Your task to perform on an android device: turn on improve location accuracy Image 0: 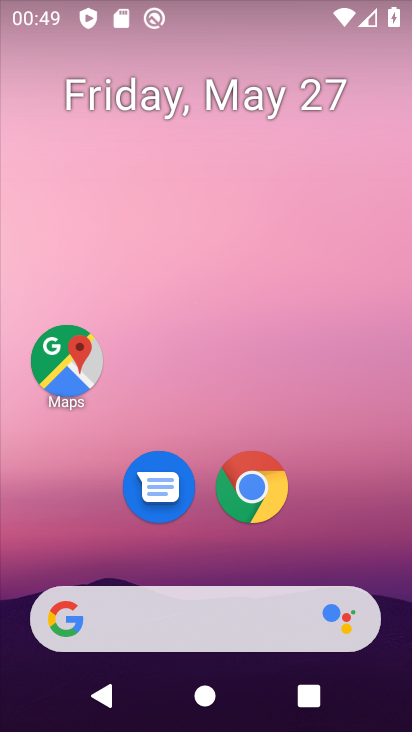
Step 0: drag from (163, 729) to (64, 23)
Your task to perform on an android device: turn on improve location accuracy Image 1: 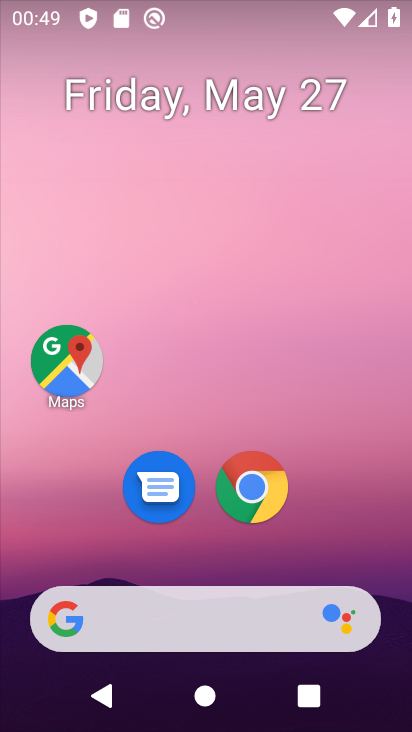
Step 1: drag from (183, 730) to (154, 87)
Your task to perform on an android device: turn on improve location accuracy Image 2: 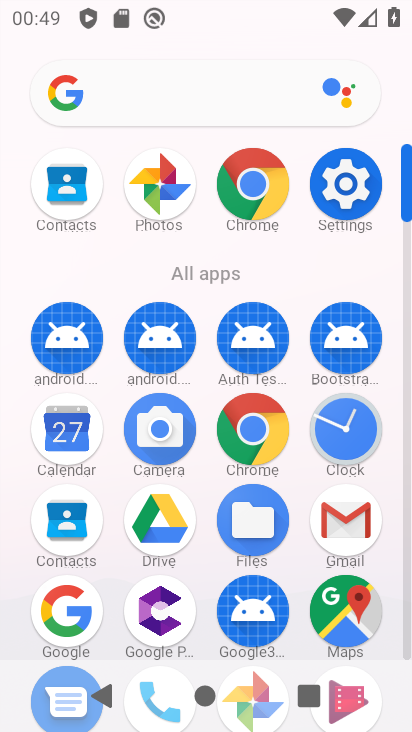
Step 2: click (348, 201)
Your task to perform on an android device: turn on improve location accuracy Image 3: 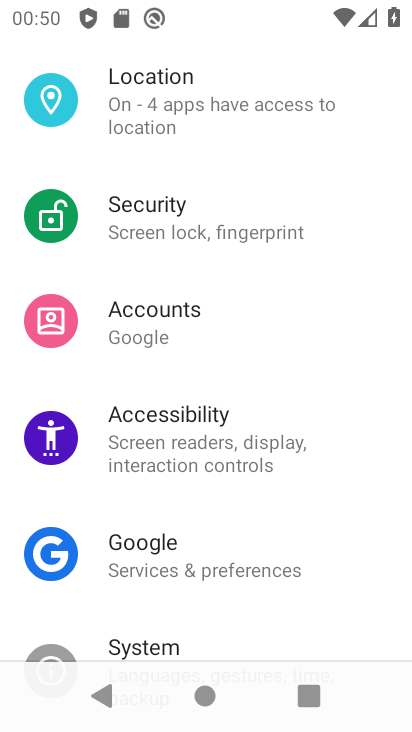
Step 3: click (158, 119)
Your task to perform on an android device: turn on improve location accuracy Image 4: 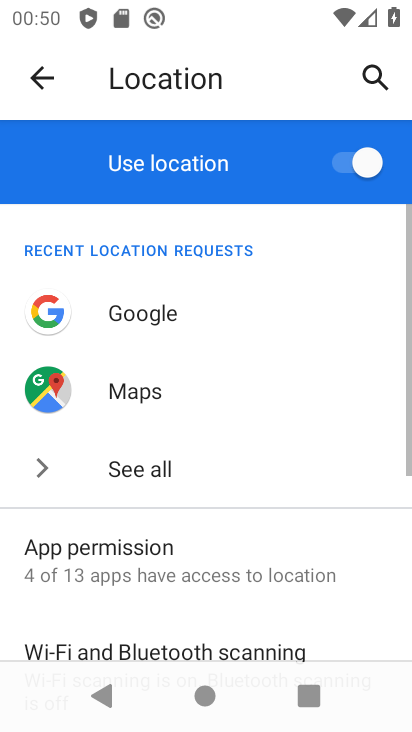
Step 4: drag from (206, 591) to (198, 246)
Your task to perform on an android device: turn on improve location accuracy Image 5: 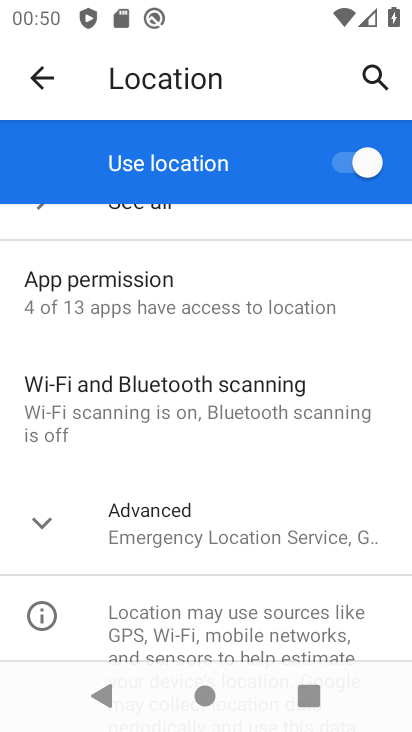
Step 5: click (245, 529)
Your task to perform on an android device: turn on improve location accuracy Image 6: 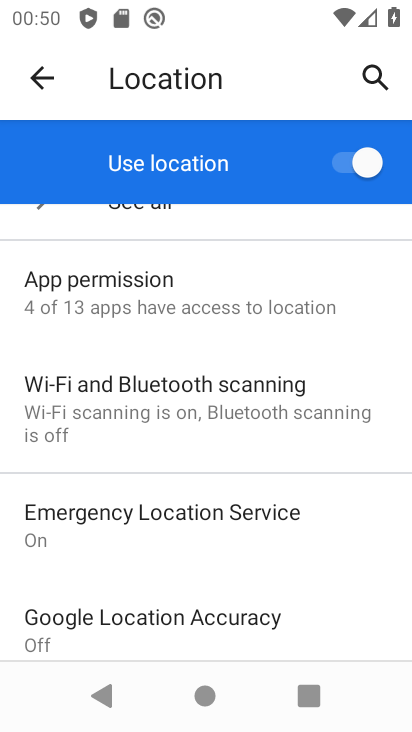
Step 6: click (260, 621)
Your task to perform on an android device: turn on improve location accuracy Image 7: 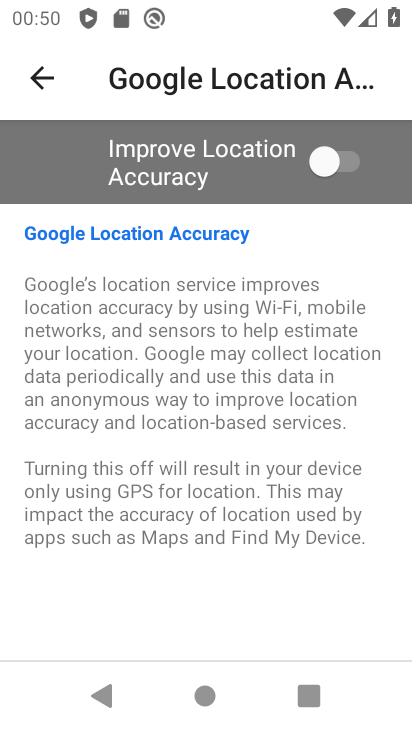
Step 7: click (334, 155)
Your task to perform on an android device: turn on improve location accuracy Image 8: 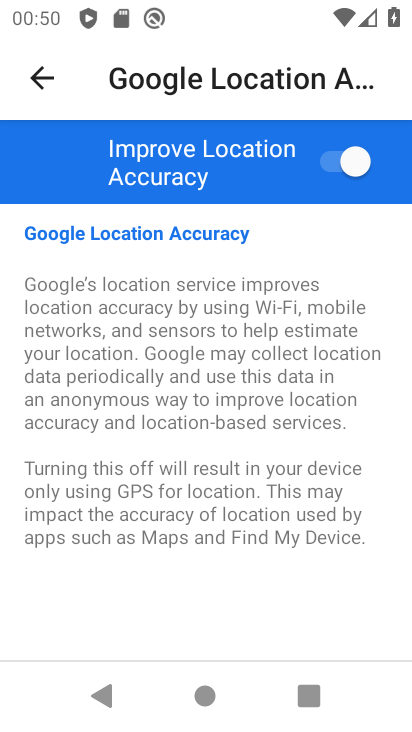
Step 8: task complete